Your task to perform on an android device: Search for apple airpods on ebay, select the first entry, and add it to the cart. Image 0: 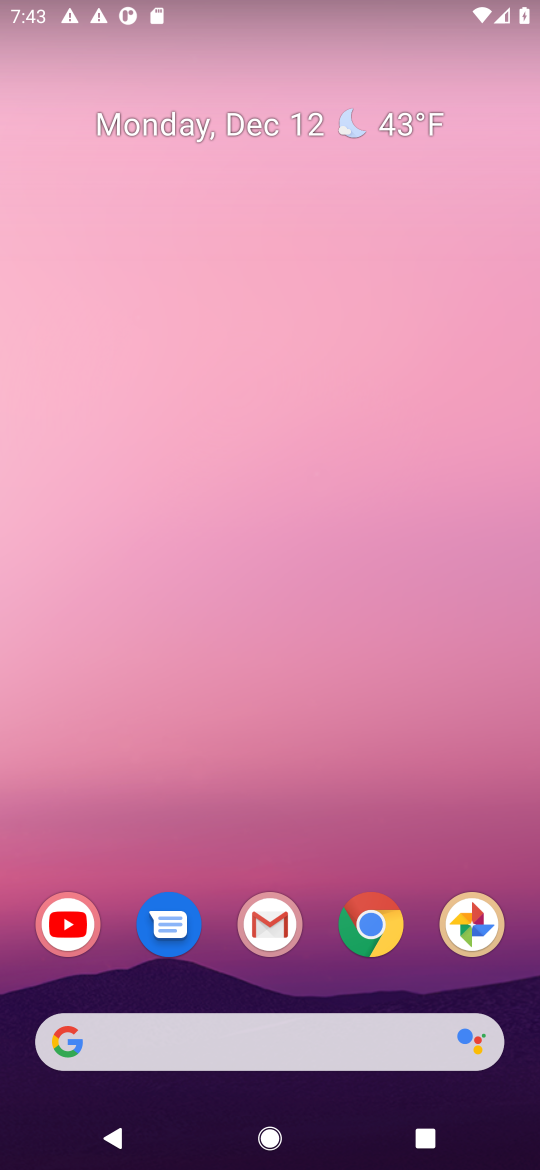
Step 0: click (269, 1038)
Your task to perform on an android device: Search for apple airpods on ebay, select the first entry, and add it to the cart. Image 1: 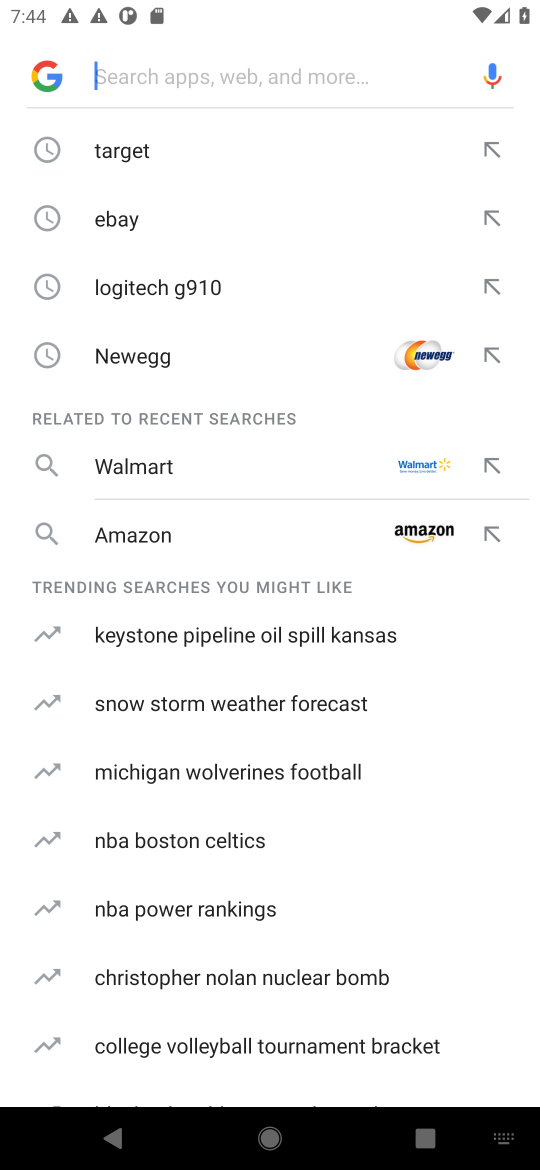
Step 1: click (125, 216)
Your task to perform on an android device: Search for apple airpods on ebay, select the first entry, and add it to the cart. Image 2: 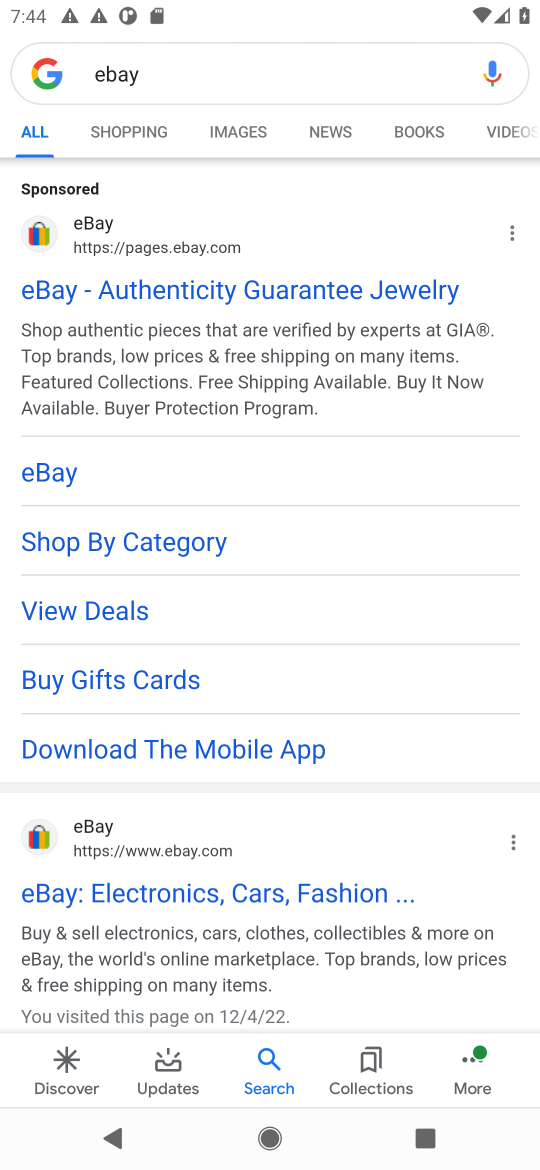
Step 2: click (88, 253)
Your task to perform on an android device: Search for apple airpods on ebay, select the first entry, and add it to the cart. Image 3: 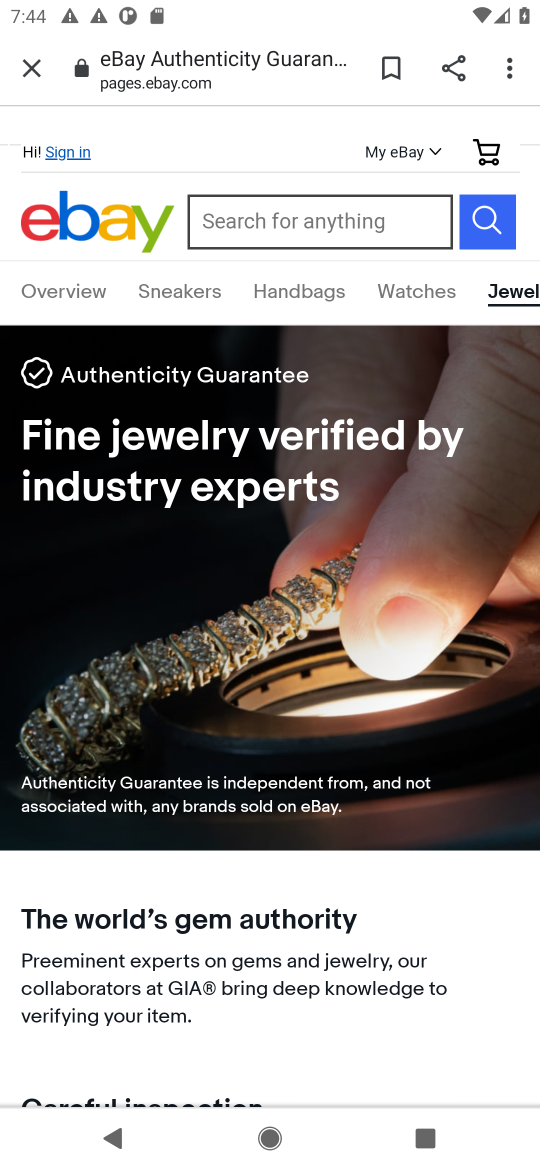
Step 3: click (352, 214)
Your task to perform on an android device: Search for apple airpods on ebay, select the first entry, and add it to the cart. Image 4: 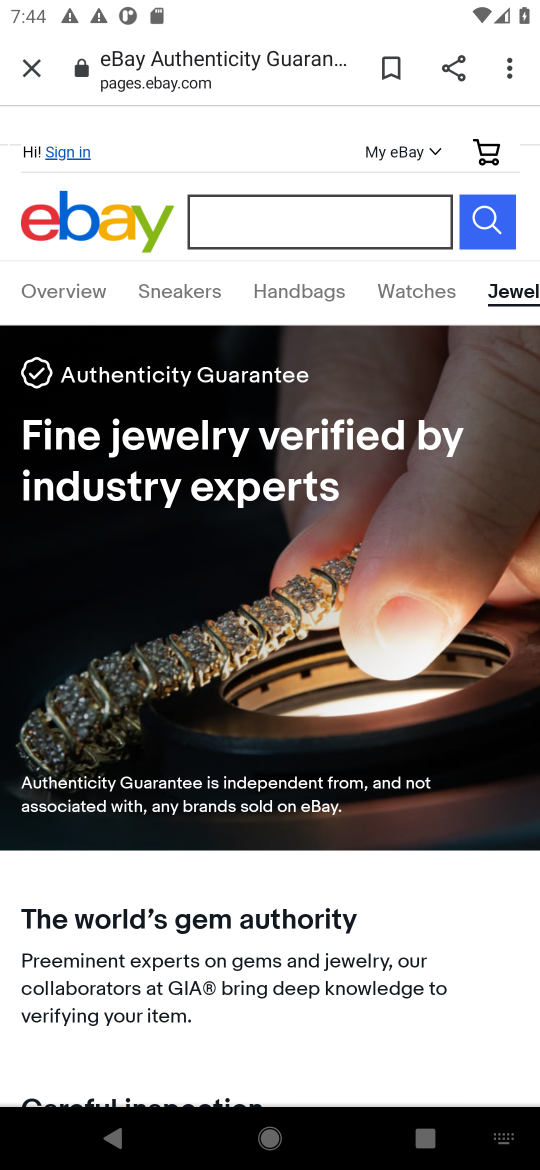
Step 4: type "apple airpods "
Your task to perform on an android device: Search for apple airpods on ebay, select the first entry, and add it to the cart. Image 5: 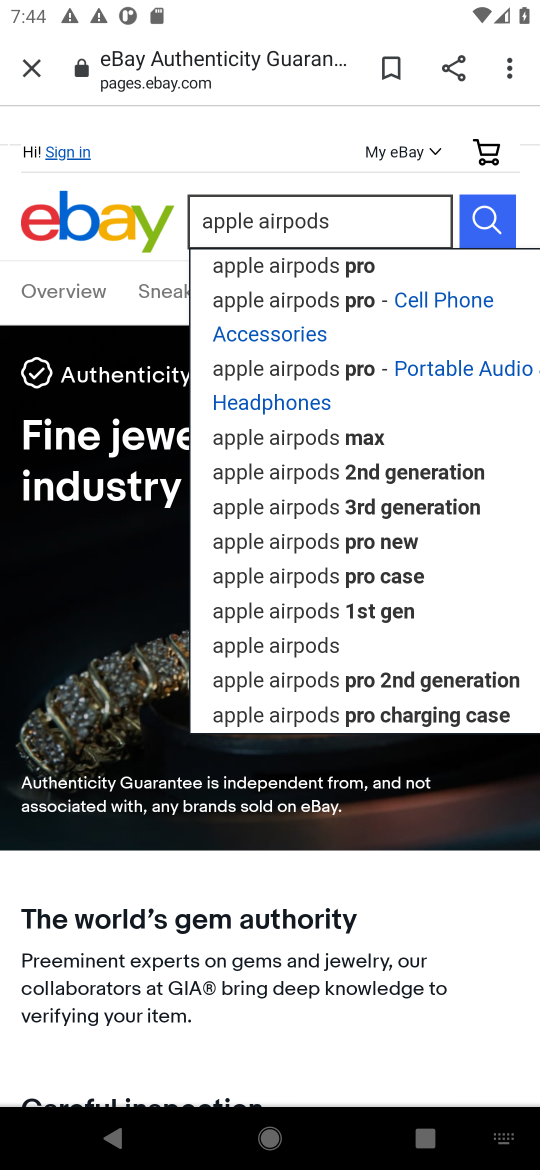
Step 5: click (352, 255)
Your task to perform on an android device: Search for apple airpods on ebay, select the first entry, and add it to the cart. Image 6: 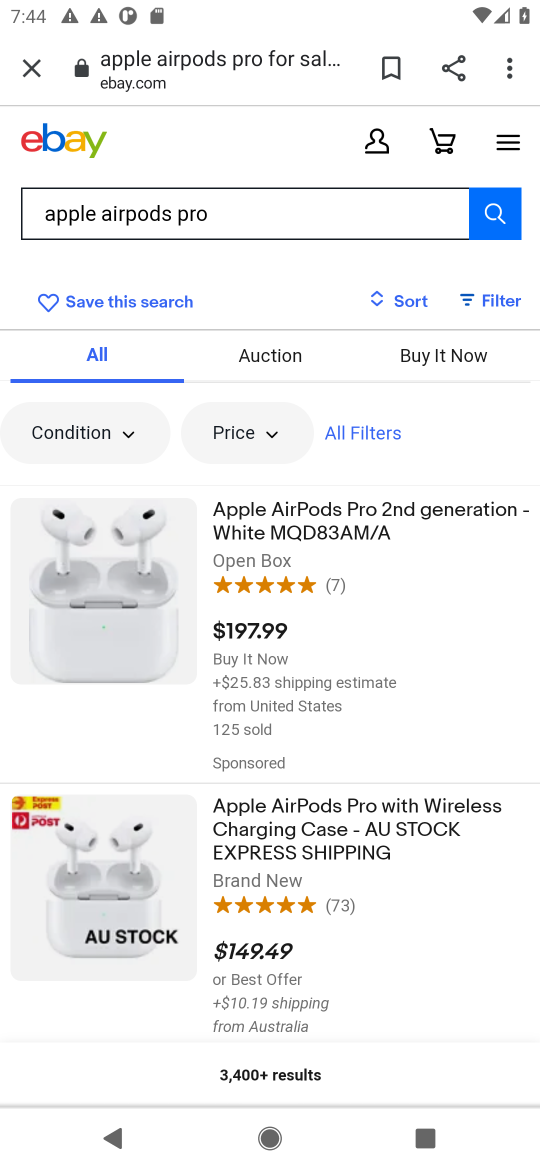
Step 6: click (274, 530)
Your task to perform on an android device: Search for apple airpods on ebay, select the first entry, and add it to the cart. Image 7: 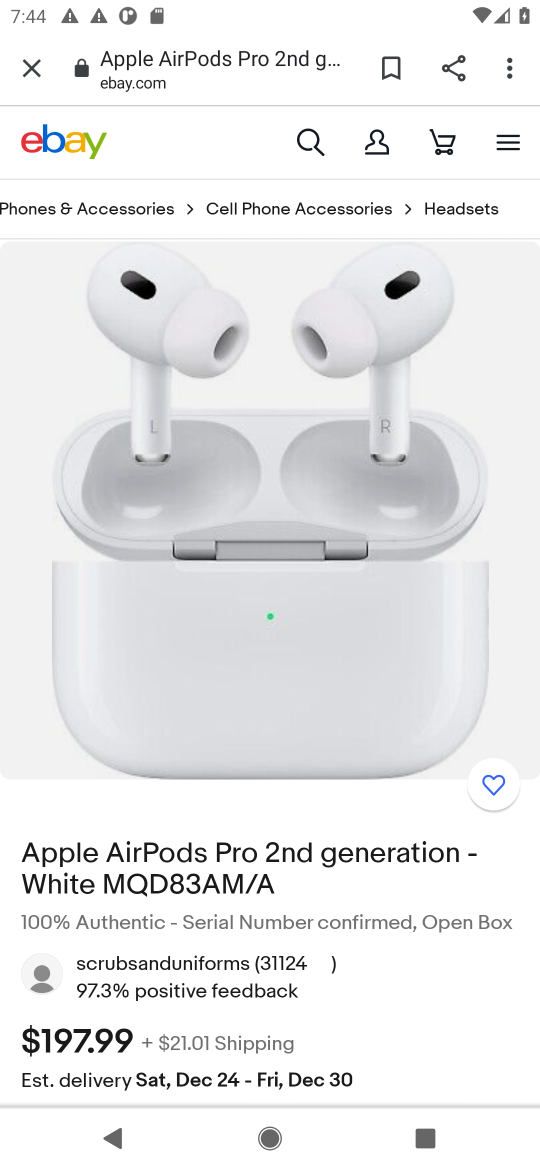
Step 7: drag from (207, 871) to (250, 495)
Your task to perform on an android device: Search for apple airpods on ebay, select the first entry, and add it to the cart. Image 8: 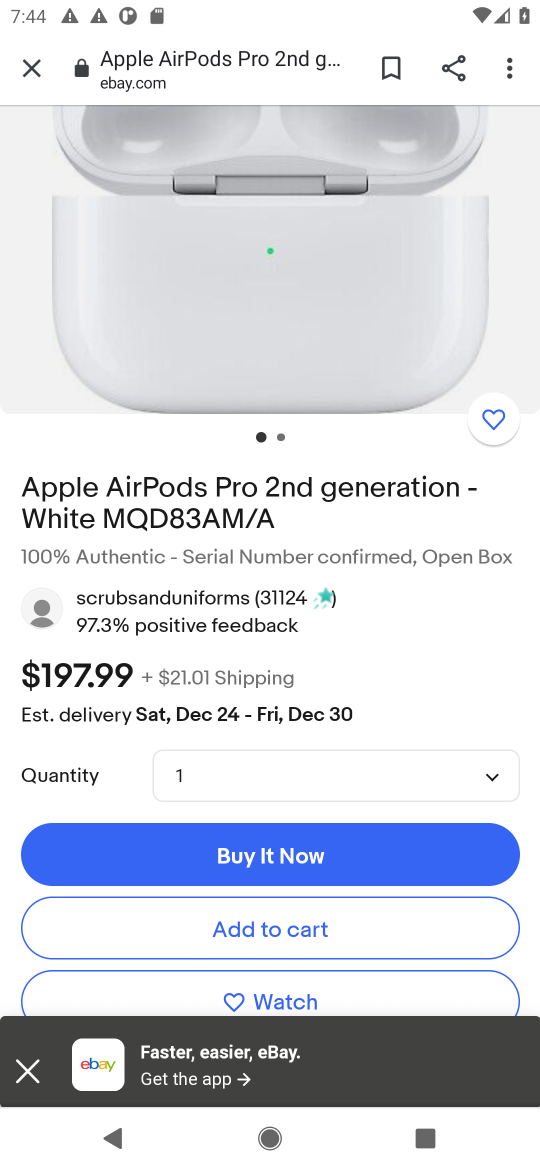
Step 8: click (242, 928)
Your task to perform on an android device: Search for apple airpods on ebay, select the first entry, and add it to the cart. Image 9: 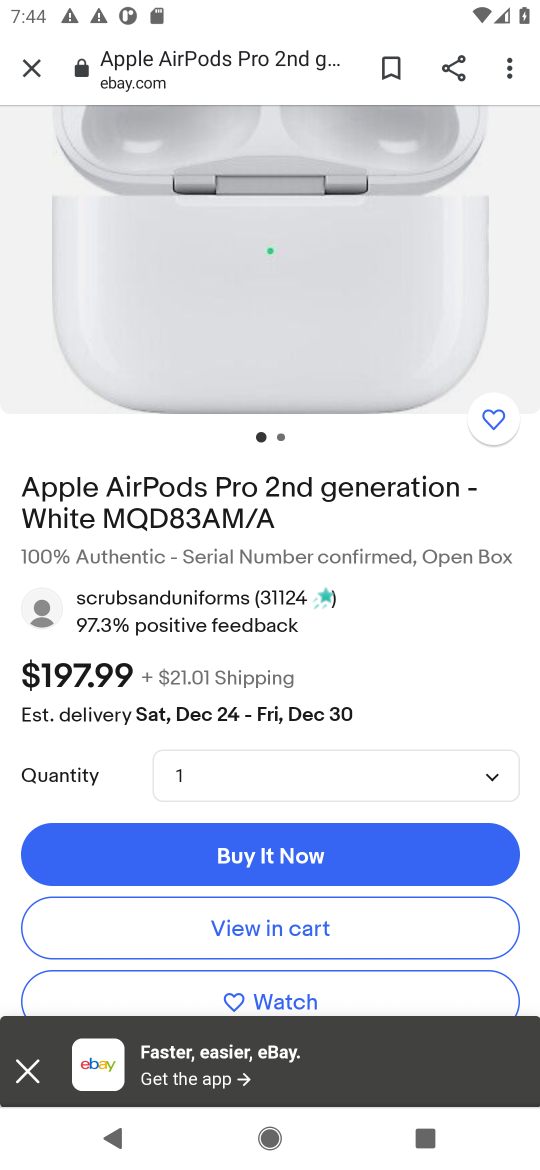
Step 9: task complete